Your task to perform on an android device: turn notification dots on Image 0: 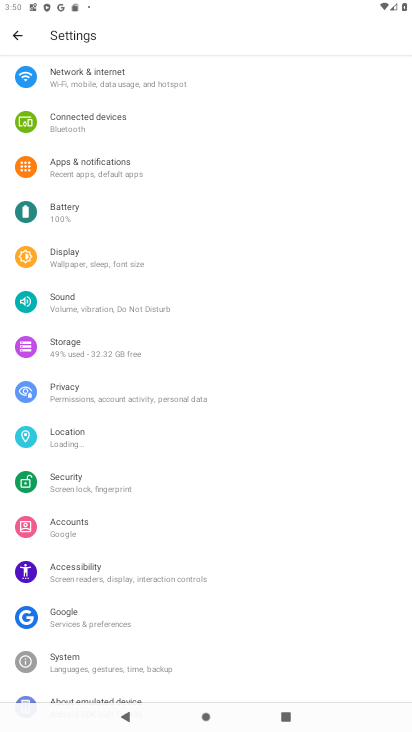
Step 0: press home button
Your task to perform on an android device: turn notification dots on Image 1: 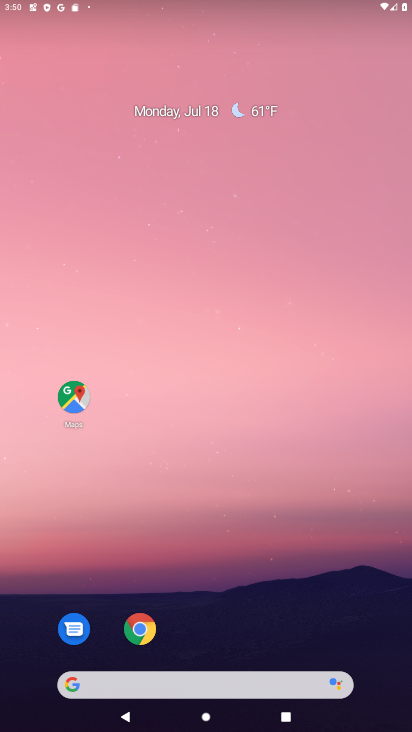
Step 1: click (202, 251)
Your task to perform on an android device: turn notification dots on Image 2: 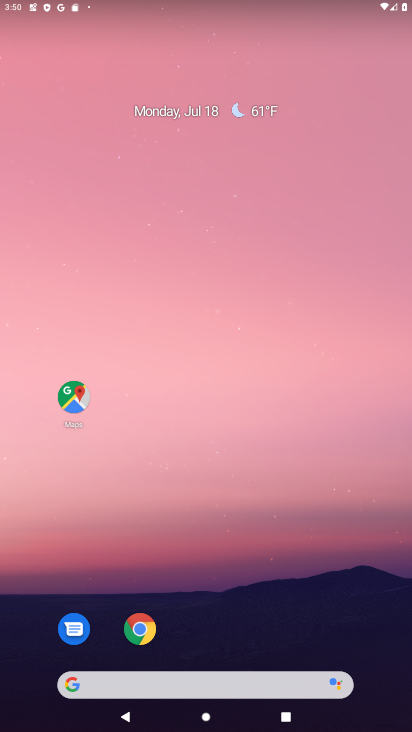
Step 2: drag from (264, 659) to (254, 106)
Your task to perform on an android device: turn notification dots on Image 3: 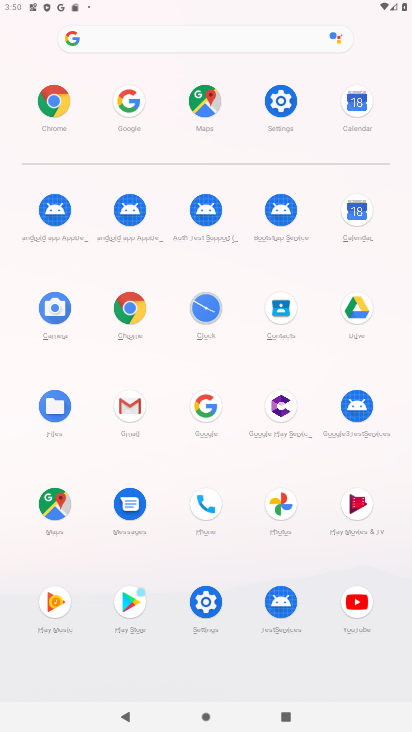
Step 3: click (209, 611)
Your task to perform on an android device: turn notification dots on Image 4: 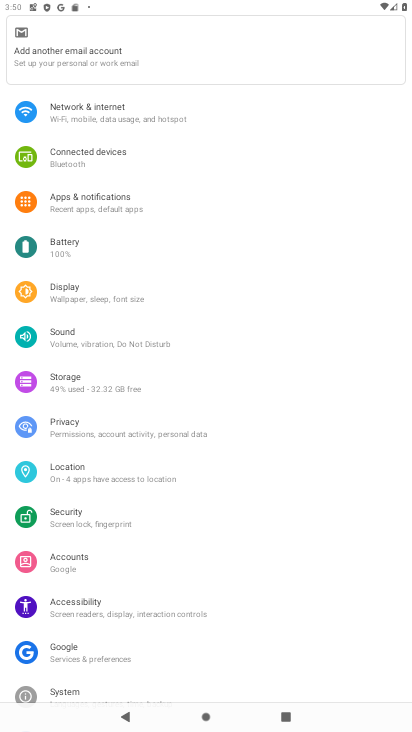
Step 4: click (91, 193)
Your task to perform on an android device: turn notification dots on Image 5: 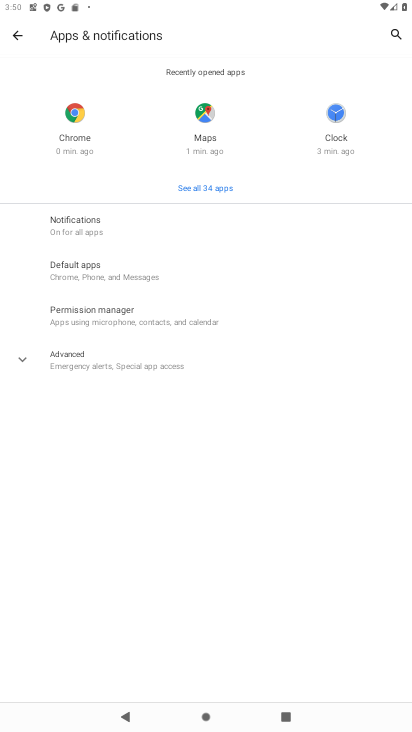
Step 5: click (85, 222)
Your task to perform on an android device: turn notification dots on Image 6: 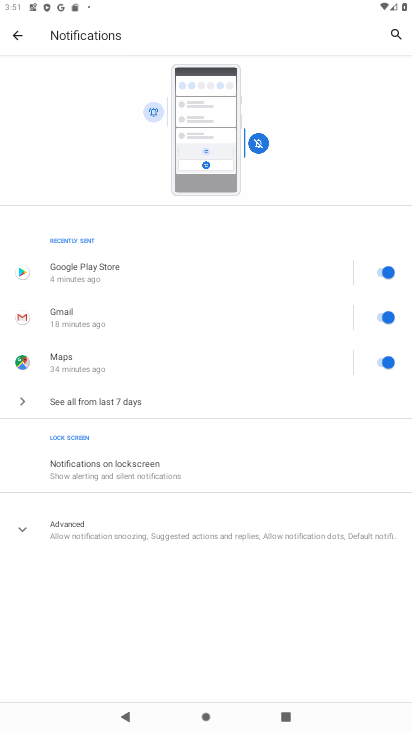
Step 6: click (93, 522)
Your task to perform on an android device: turn notification dots on Image 7: 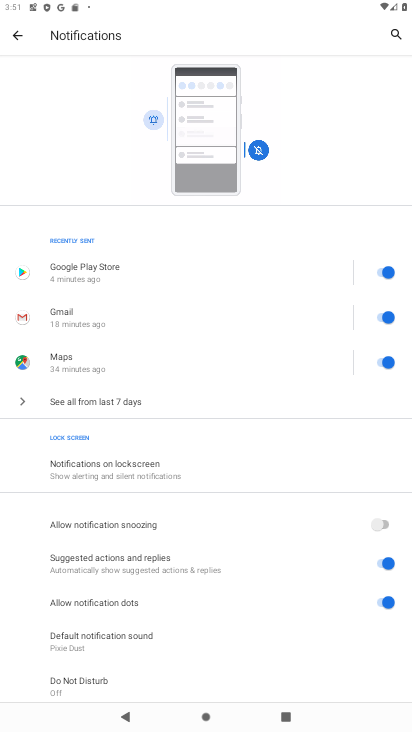
Step 7: task complete